Your task to perform on an android device: turn off translation in the chrome app Image 0: 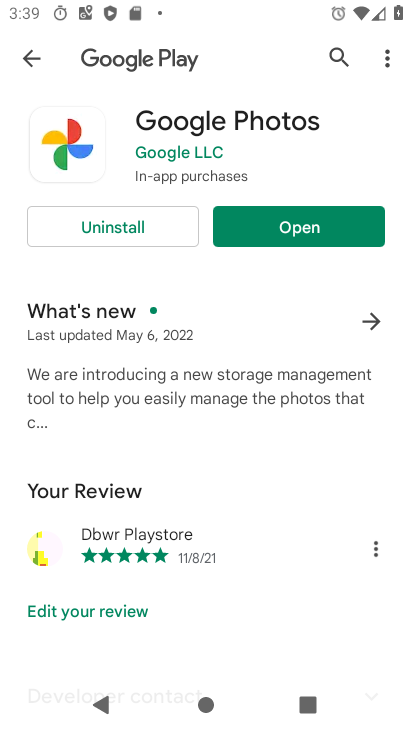
Step 0: press home button
Your task to perform on an android device: turn off translation in the chrome app Image 1: 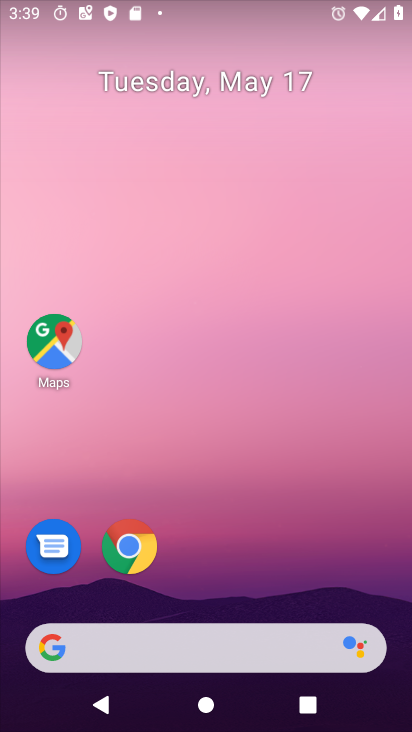
Step 1: click (125, 553)
Your task to perform on an android device: turn off translation in the chrome app Image 2: 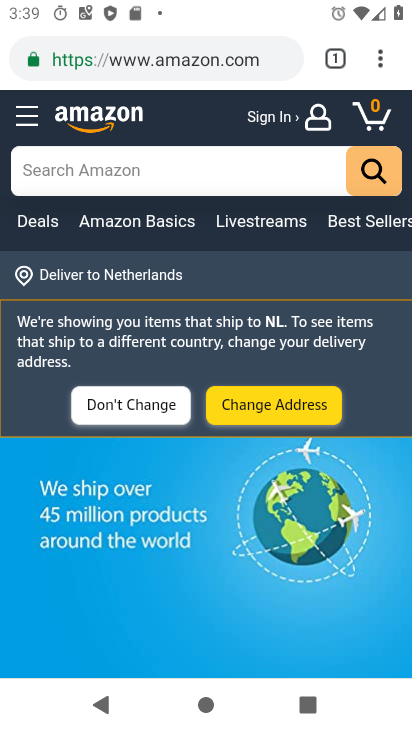
Step 2: click (388, 61)
Your task to perform on an android device: turn off translation in the chrome app Image 3: 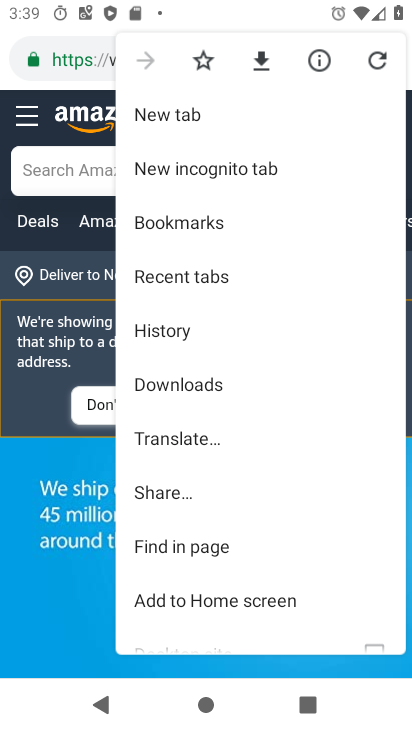
Step 3: click (236, 439)
Your task to perform on an android device: turn off translation in the chrome app Image 4: 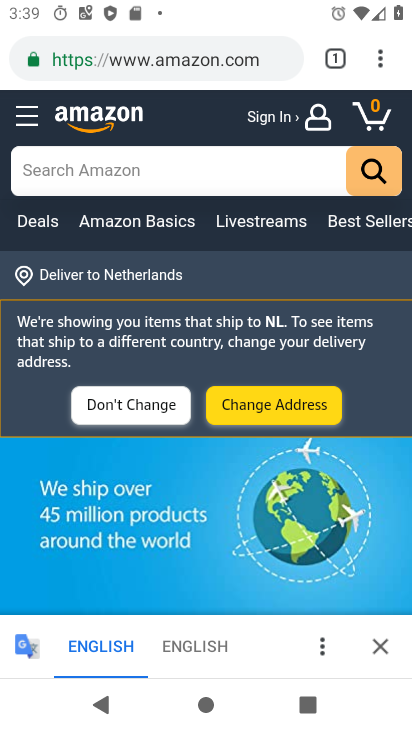
Step 4: click (324, 662)
Your task to perform on an android device: turn off translation in the chrome app Image 5: 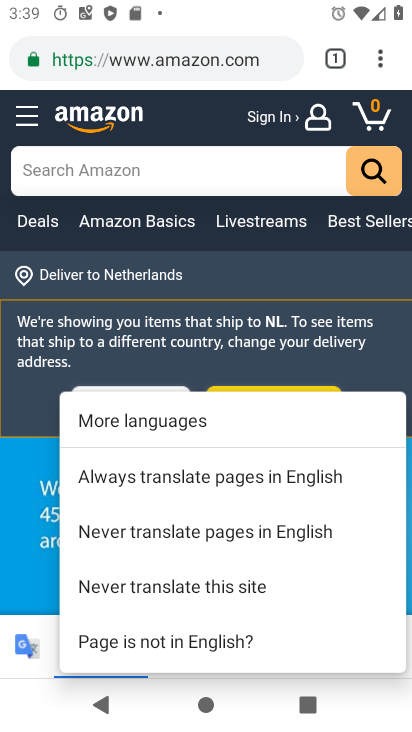
Step 5: click (242, 536)
Your task to perform on an android device: turn off translation in the chrome app Image 6: 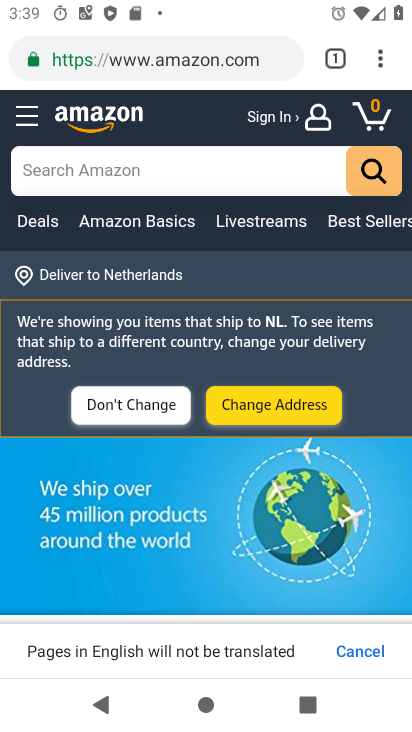
Step 6: task complete